Your task to perform on an android device: uninstall "YouTube Kids" Image 0: 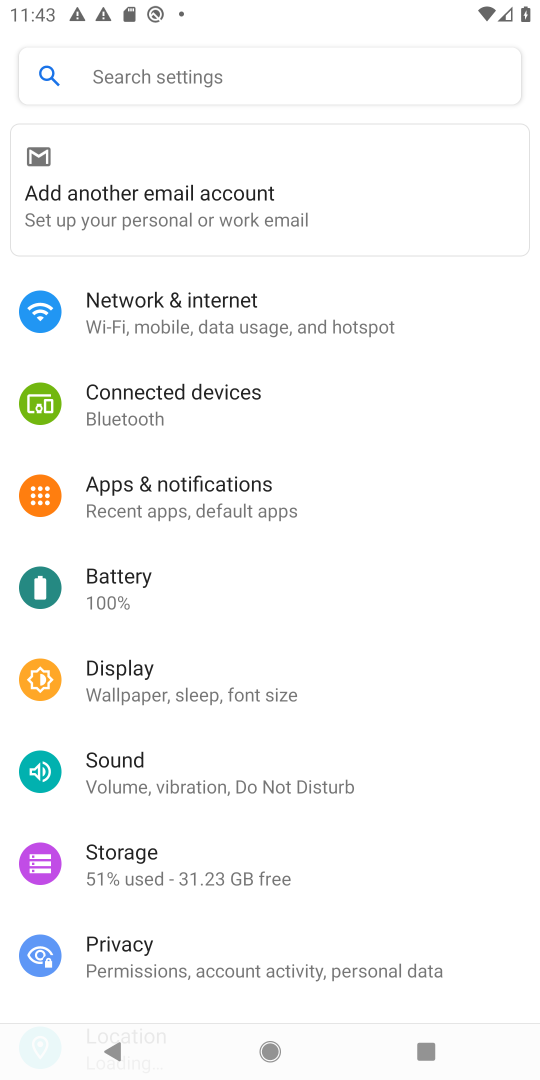
Step 0: press home button
Your task to perform on an android device: uninstall "YouTube Kids" Image 1: 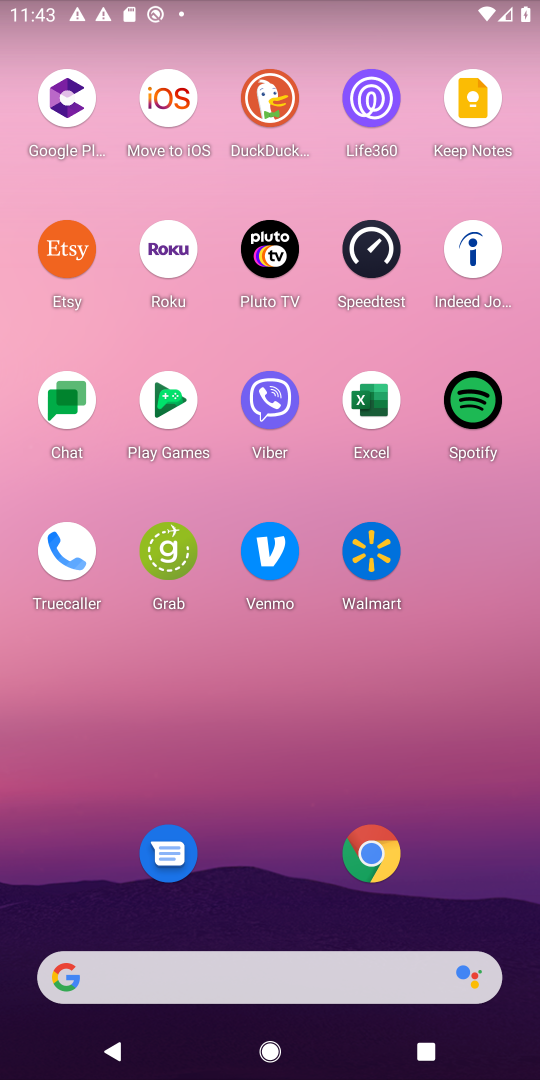
Step 1: drag from (308, 973) to (308, 9)
Your task to perform on an android device: uninstall "YouTube Kids" Image 2: 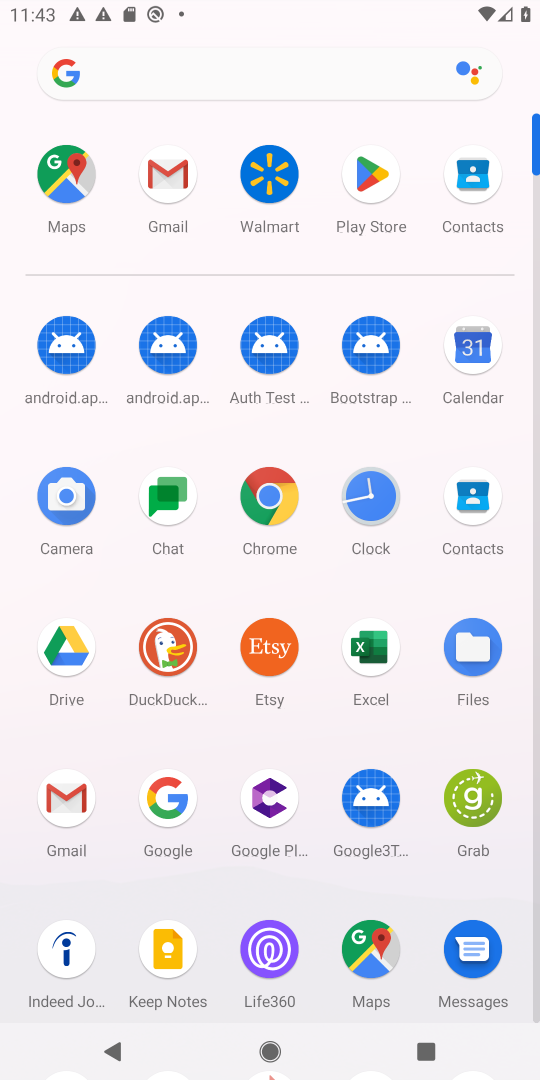
Step 2: click (376, 172)
Your task to perform on an android device: uninstall "YouTube Kids" Image 3: 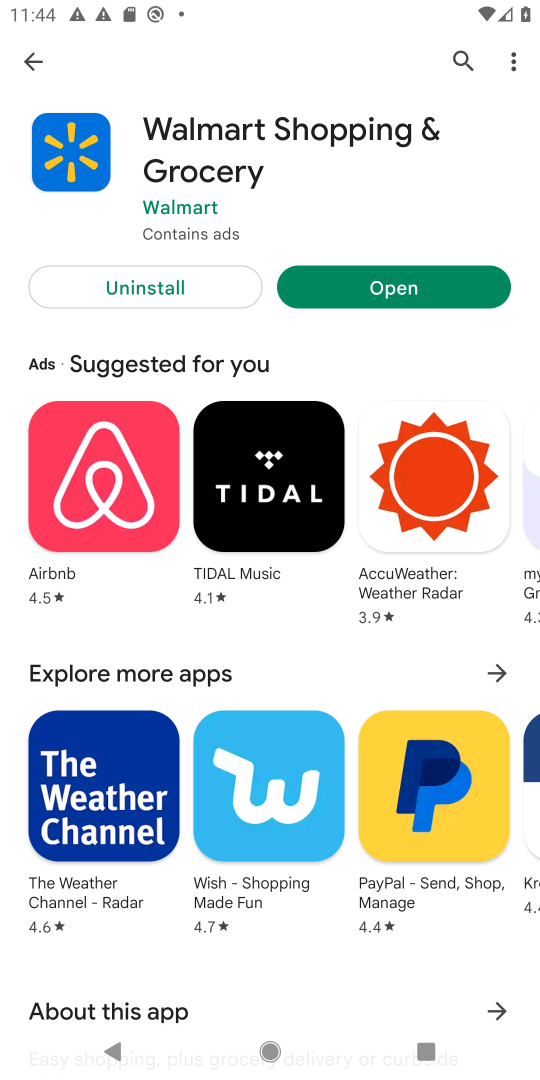
Step 3: click (457, 61)
Your task to perform on an android device: uninstall "YouTube Kids" Image 4: 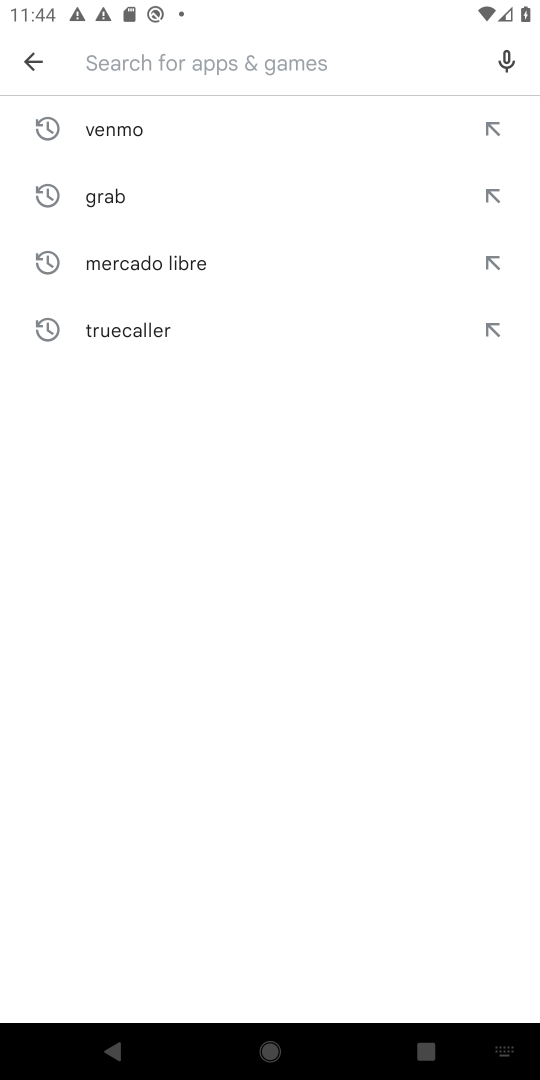
Step 4: type "YouTube Kids"
Your task to perform on an android device: uninstall "YouTube Kids" Image 5: 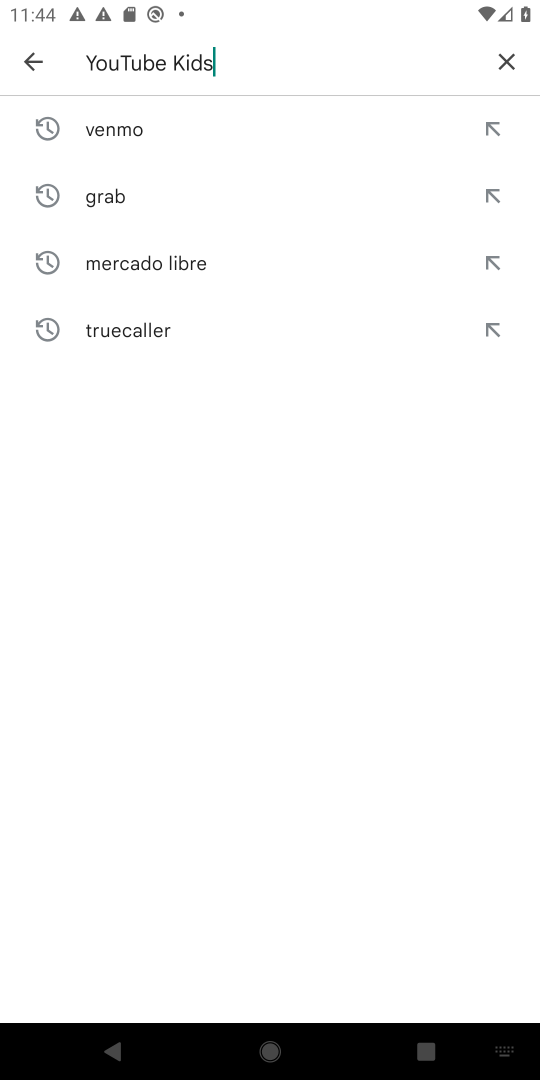
Step 5: type ""
Your task to perform on an android device: uninstall "YouTube Kids" Image 6: 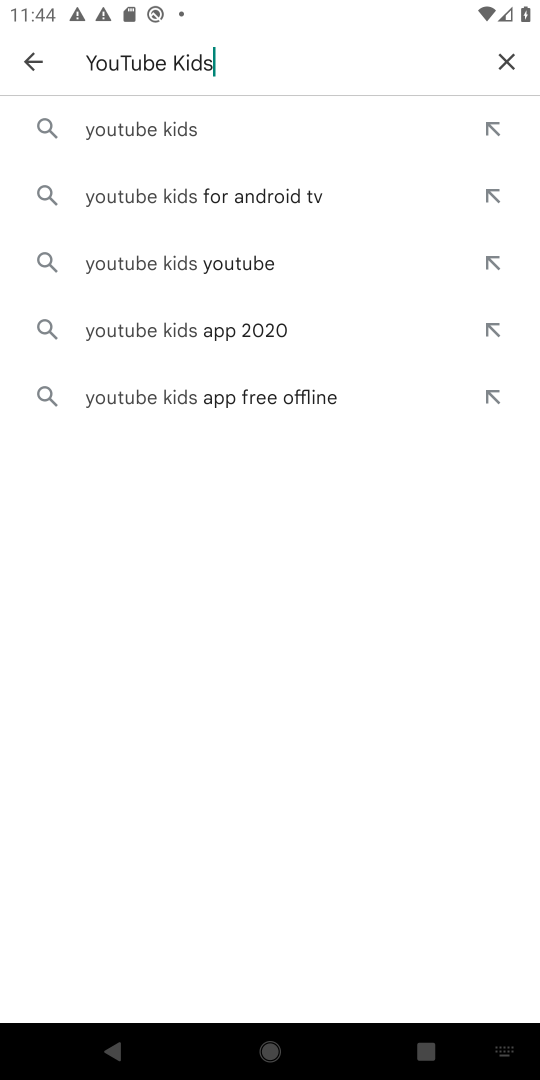
Step 6: click (113, 137)
Your task to perform on an android device: uninstall "YouTube Kids" Image 7: 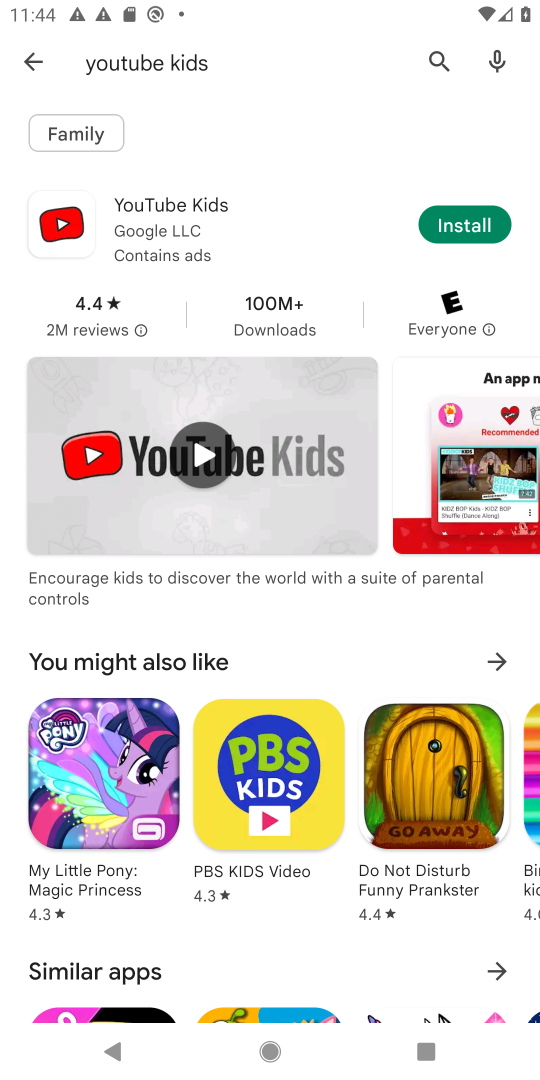
Step 7: task complete